Your task to perform on an android device: turn off wifi Image 0: 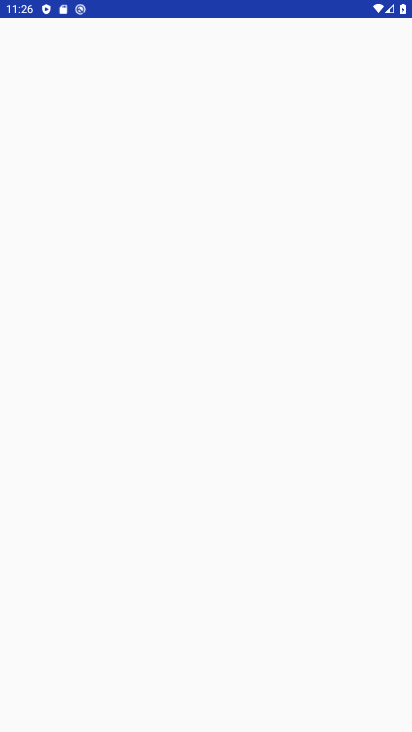
Step 0: click (211, 692)
Your task to perform on an android device: turn off wifi Image 1: 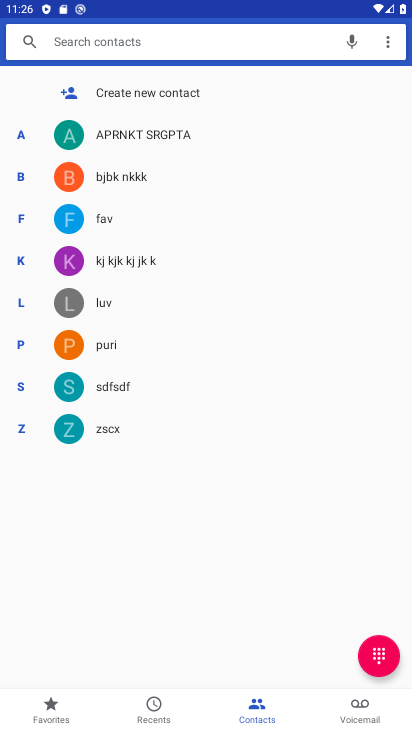
Step 1: press home button
Your task to perform on an android device: turn off wifi Image 2: 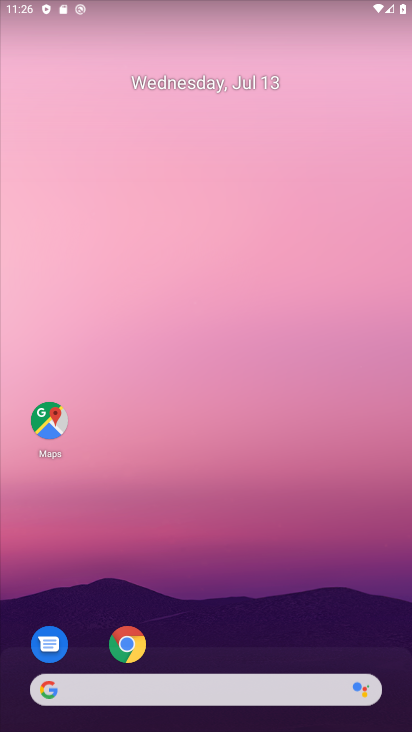
Step 2: drag from (297, 666) to (364, 131)
Your task to perform on an android device: turn off wifi Image 3: 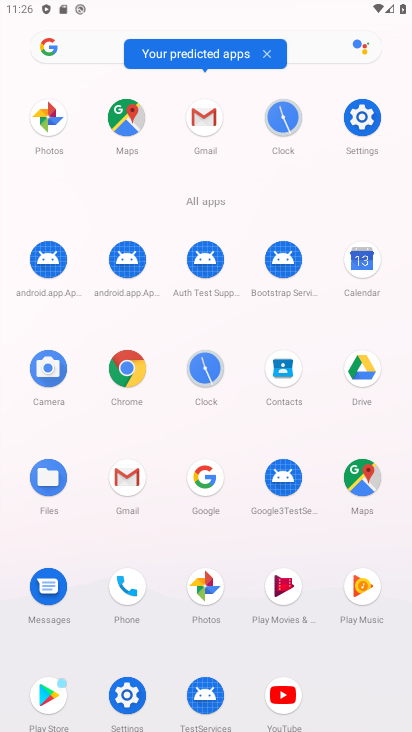
Step 3: click (120, 677)
Your task to perform on an android device: turn off wifi Image 4: 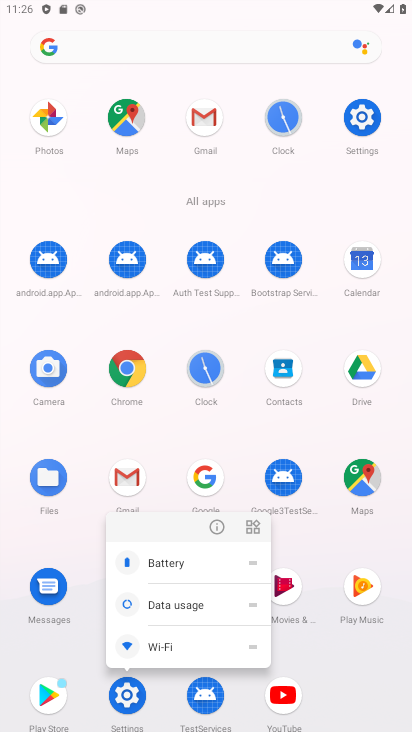
Step 4: click (128, 689)
Your task to perform on an android device: turn off wifi Image 5: 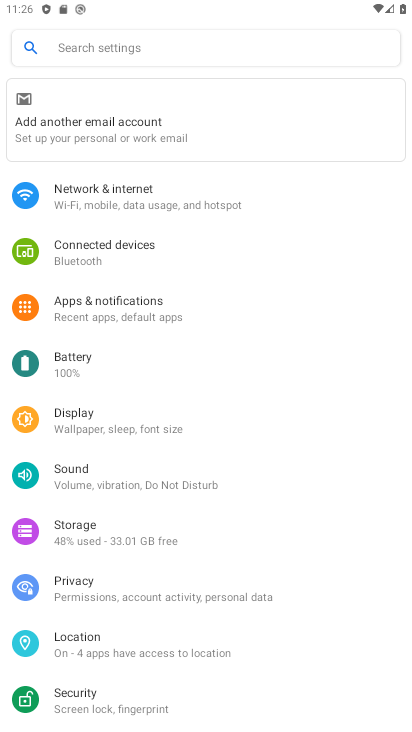
Step 5: click (173, 211)
Your task to perform on an android device: turn off wifi Image 6: 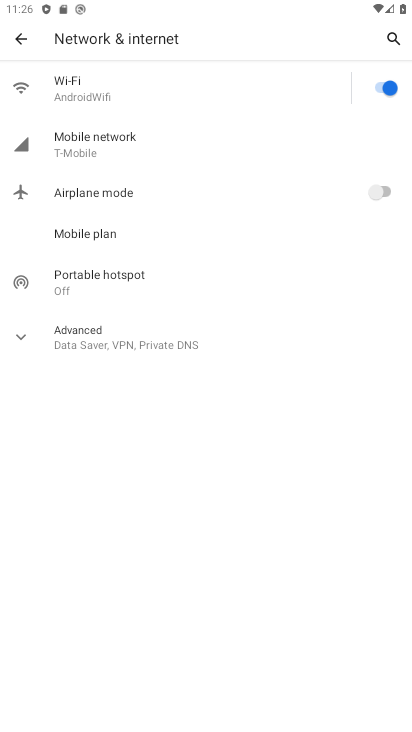
Step 6: click (376, 82)
Your task to perform on an android device: turn off wifi Image 7: 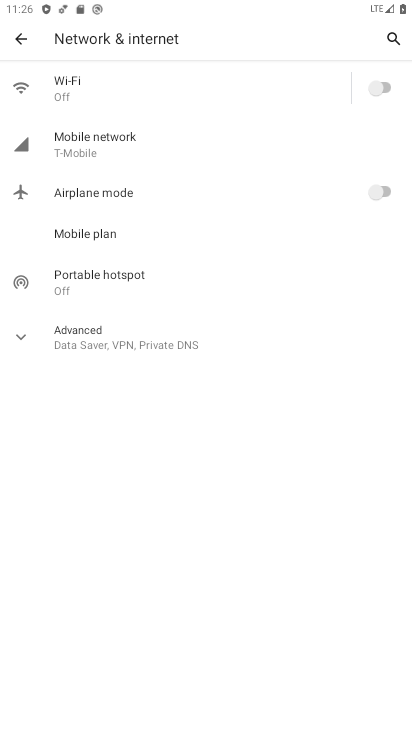
Step 7: task complete